Your task to perform on an android device: Go to internet settings Image 0: 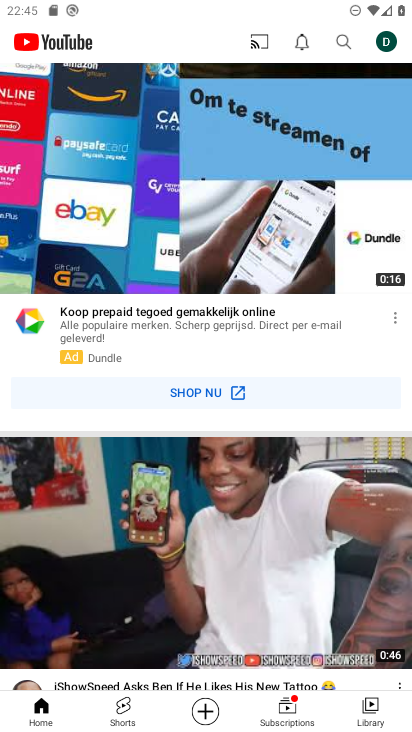
Step 0: press home button
Your task to perform on an android device: Go to internet settings Image 1: 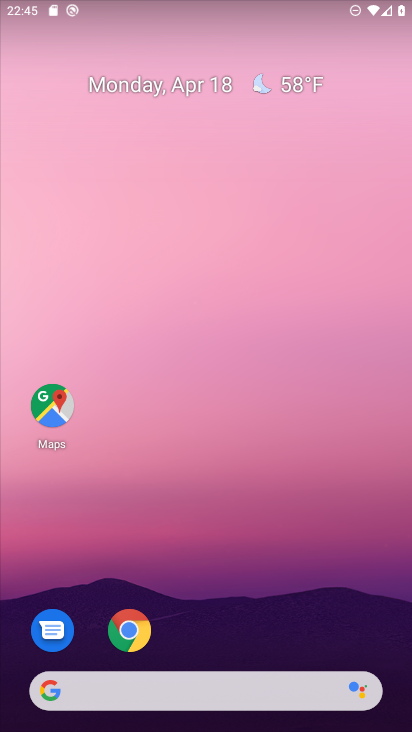
Step 1: drag from (197, 645) to (254, 28)
Your task to perform on an android device: Go to internet settings Image 2: 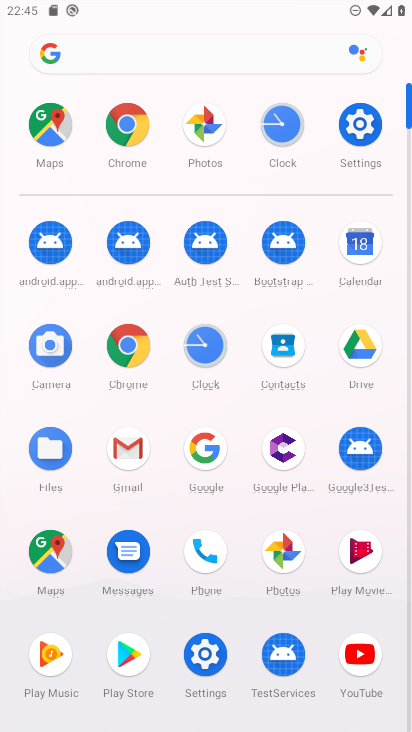
Step 2: click (347, 128)
Your task to perform on an android device: Go to internet settings Image 3: 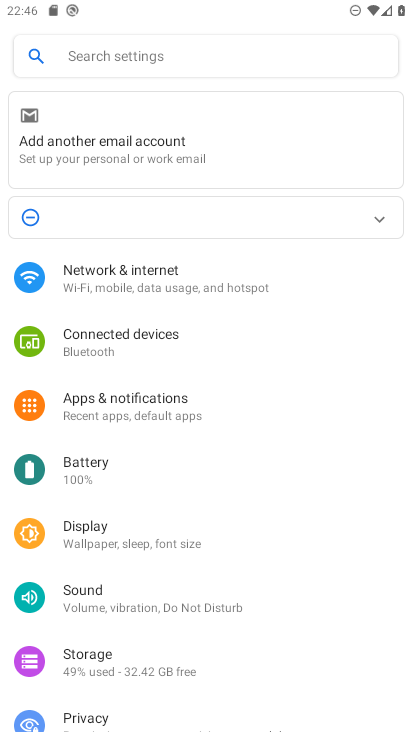
Step 3: click (78, 263)
Your task to perform on an android device: Go to internet settings Image 4: 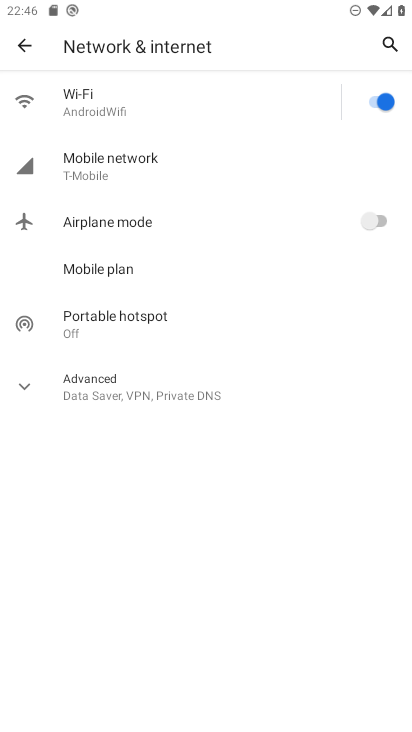
Step 4: task complete